Your task to perform on an android device: change the upload size in google photos Image 0: 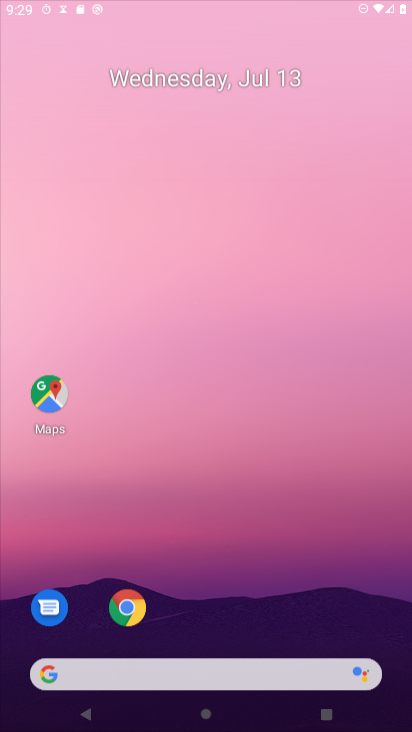
Step 0: drag from (228, 698) to (158, 317)
Your task to perform on an android device: change the upload size in google photos Image 1: 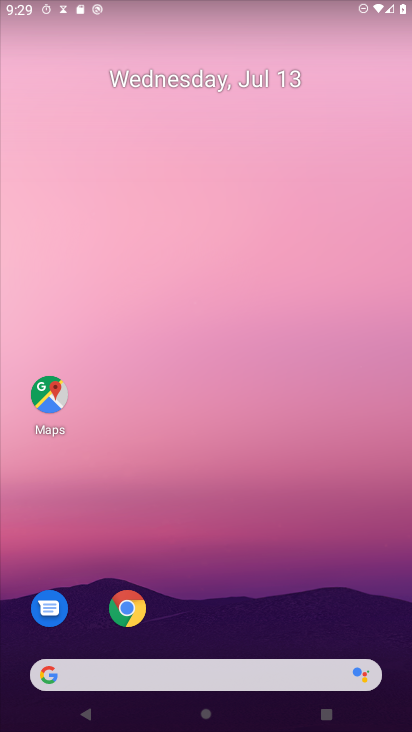
Step 1: drag from (263, 686) to (242, 273)
Your task to perform on an android device: change the upload size in google photos Image 2: 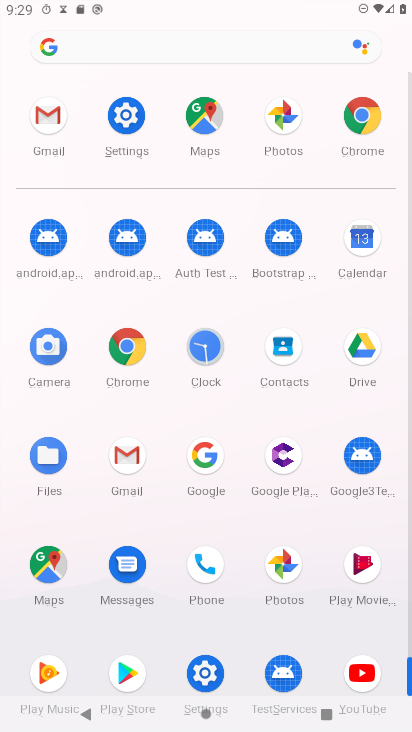
Step 2: click (285, 557)
Your task to perform on an android device: change the upload size in google photos Image 3: 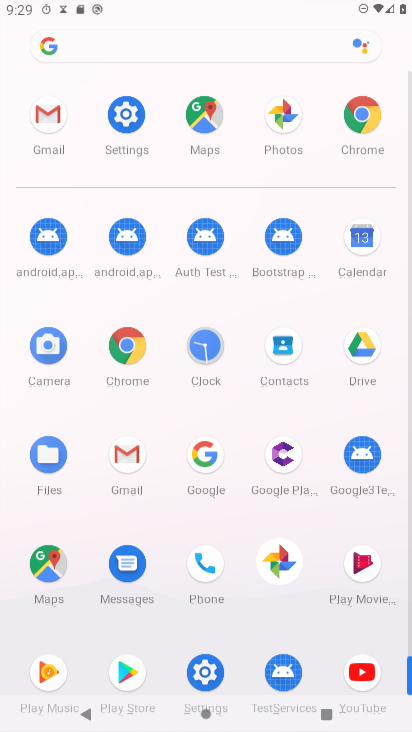
Step 3: click (285, 557)
Your task to perform on an android device: change the upload size in google photos Image 4: 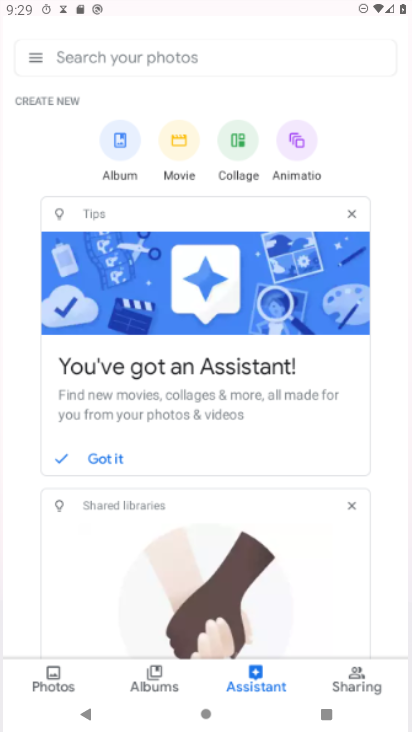
Step 4: click (286, 558)
Your task to perform on an android device: change the upload size in google photos Image 5: 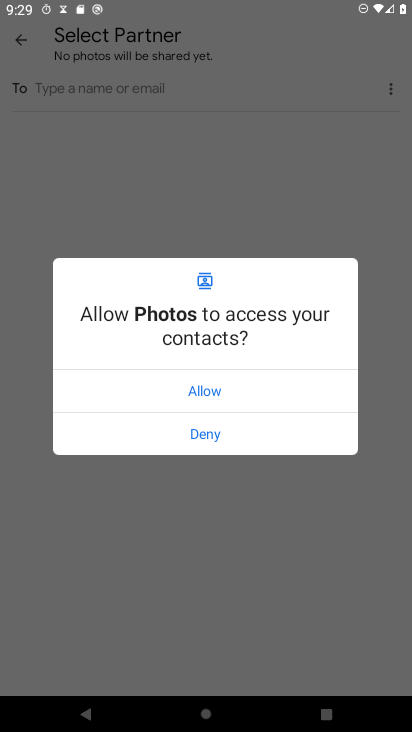
Step 5: click (222, 396)
Your task to perform on an android device: change the upload size in google photos Image 6: 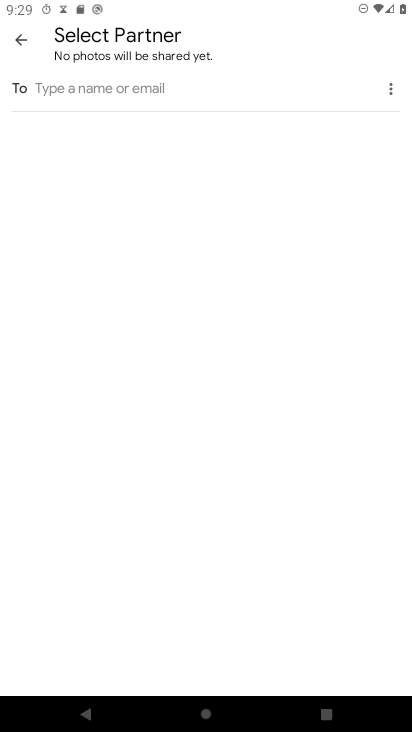
Step 6: click (24, 35)
Your task to perform on an android device: change the upload size in google photos Image 7: 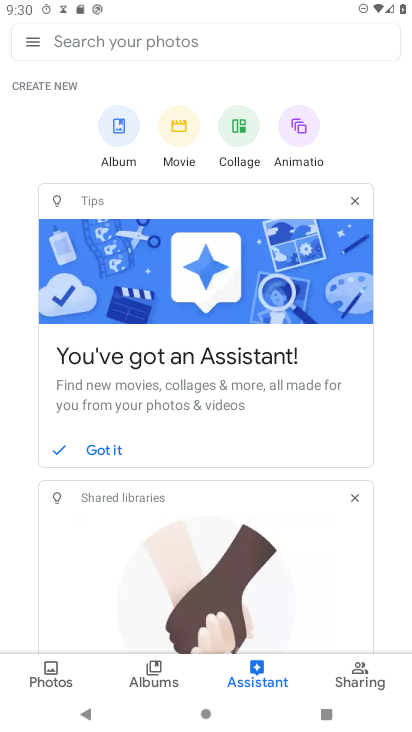
Step 7: click (31, 49)
Your task to perform on an android device: change the upload size in google photos Image 8: 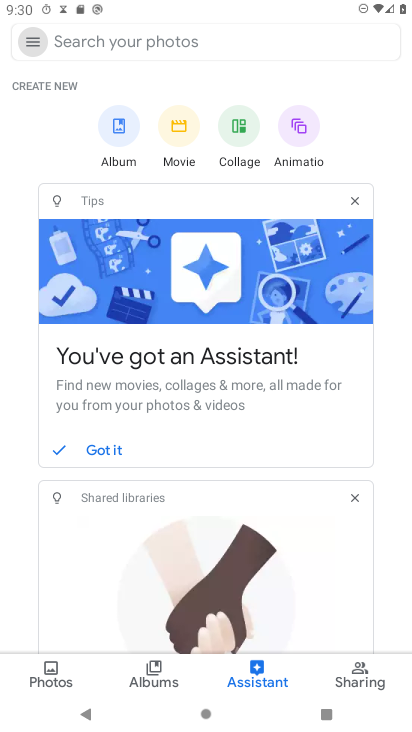
Step 8: click (30, 50)
Your task to perform on an android device: change the upload size in google photos Image 9: 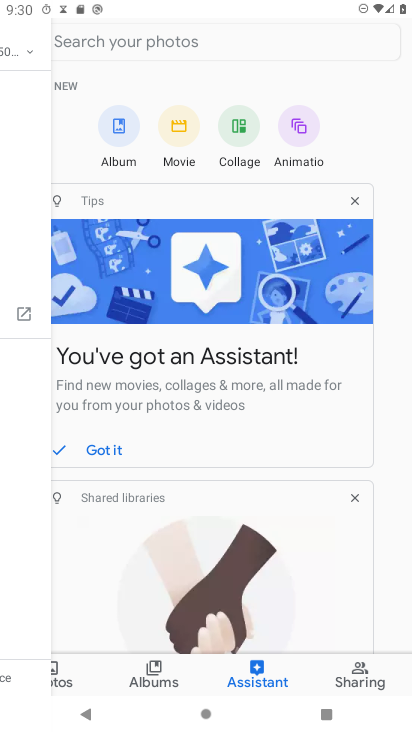
Step 9: click (30, 50)
Your task to perform on an android device: change the upload size in google photos Image 10: 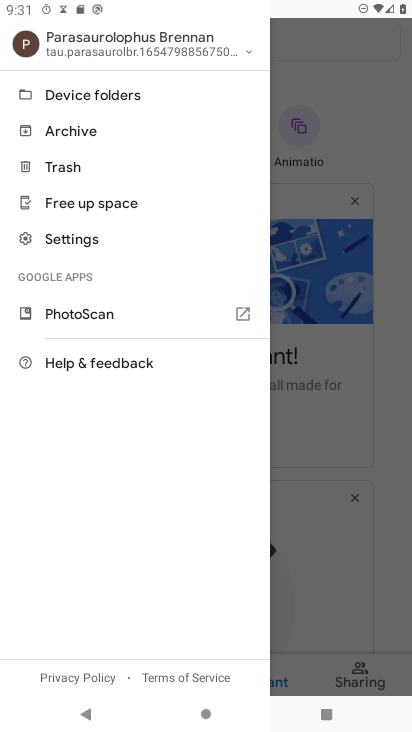
Step 10: click (76, 237)
Your task to perform on an android device: change the upload size in google photos Image 11: 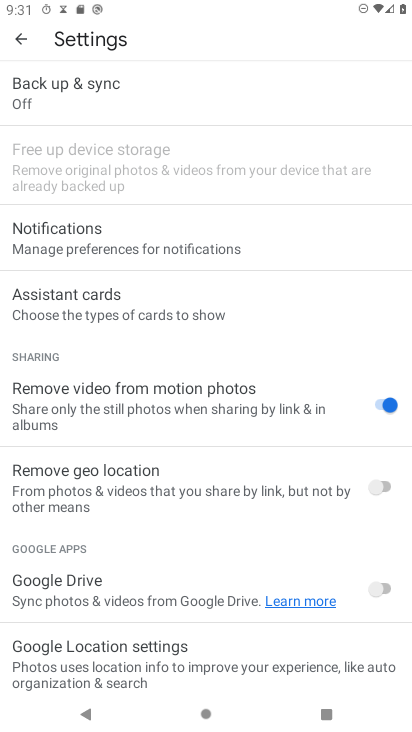
Step 11: click (71, 105)
Your task to perform on an android device: change the upload size in google photos Image 12: 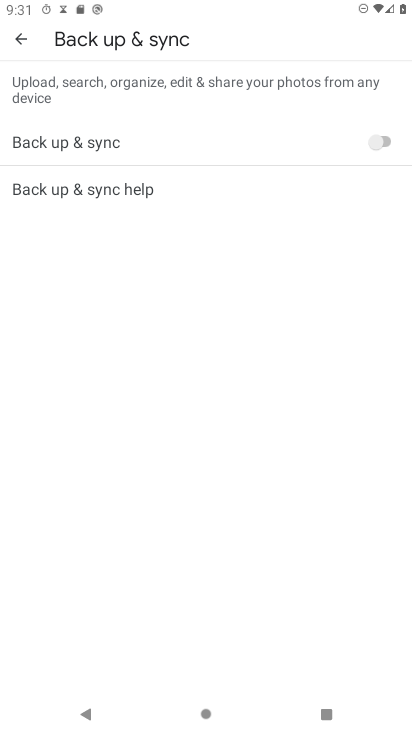
Step 12: click (60, 143)
Your task to perform on an android device: change the upload size in google photos Image 13: 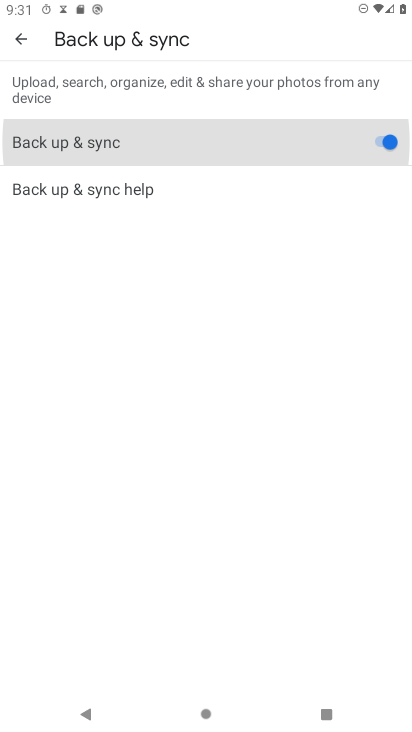
Step 13: click (59, 142)
Your task to perform on an android device: change the upload size in google photos Image 14: 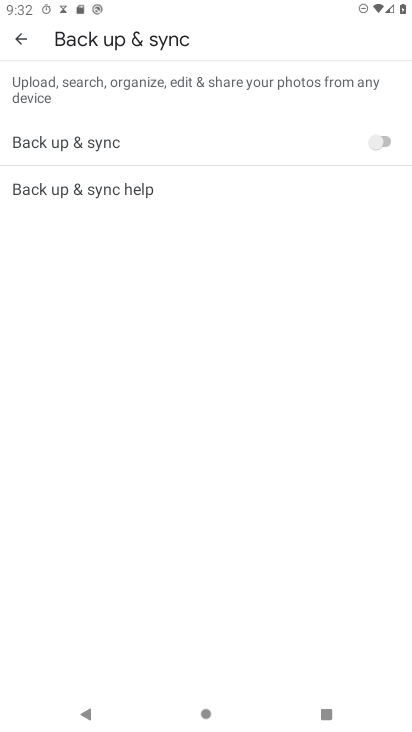
Step 14: click (61, 152)
Your task to perform on an android device: change the upload size in google photos Image 15: 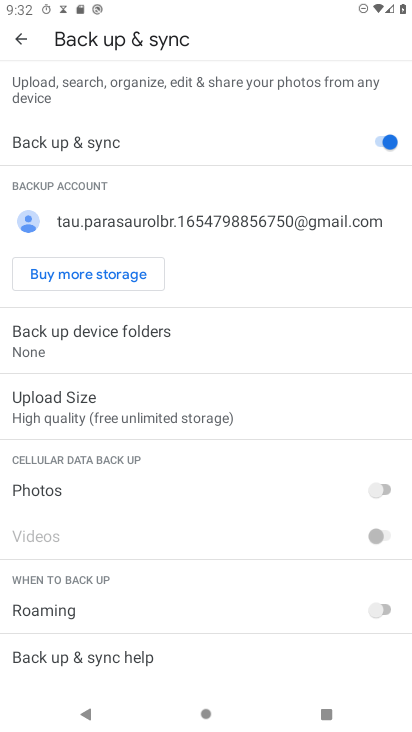
Step 15: click (91, 415)
Your task to perform on an android device: change the upload size in google photos Image 16: 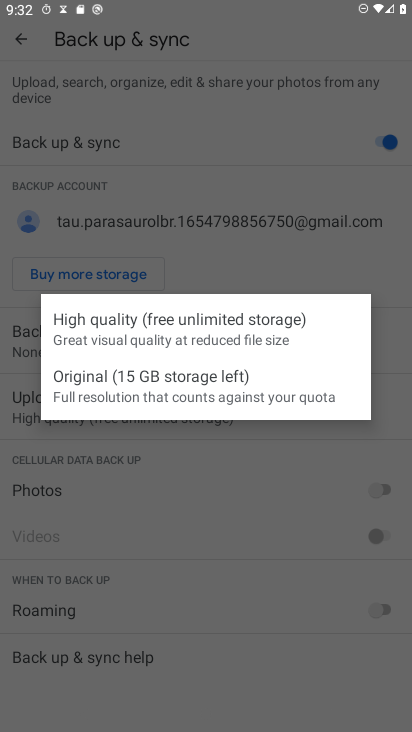
Step 16: click (140, 385)
Your task to perform on an android device: change the upload size in google photos Image 17: 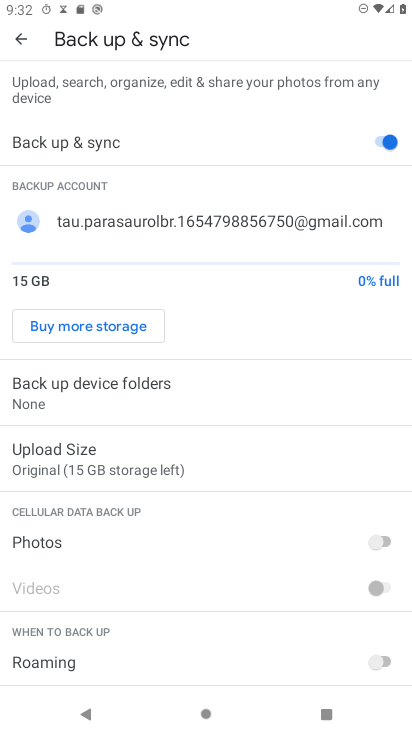
Step 17: task complete